Your task to perform on an android device: star an email in the gmail app Image 0: 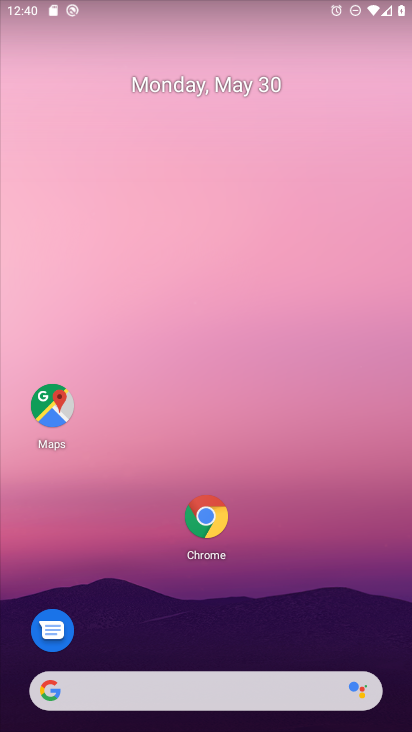
Step 0: press home button
Your task to perform on an android device: star an email in the gmail app Image 1: 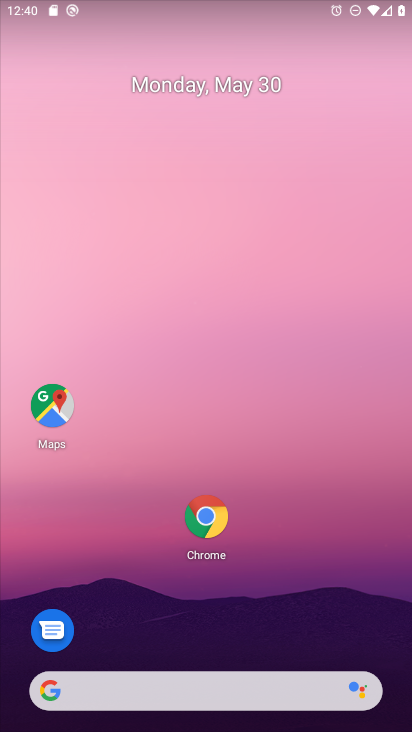
Step 1: drag from (181, 696) to (317, 107)
Your task to perform on an android device: star an email in the gmail app Image 2: 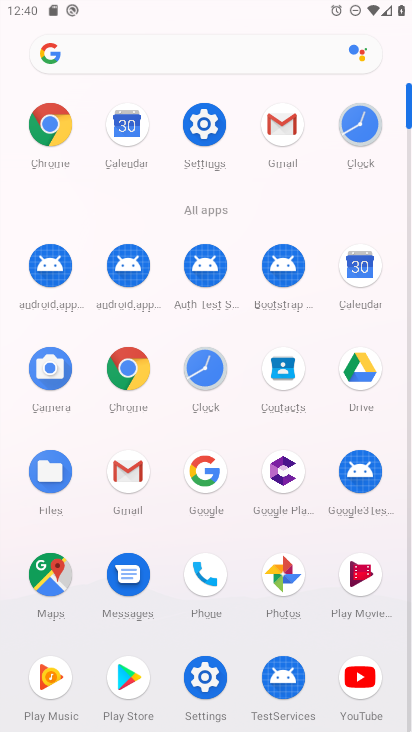
Step 2: click (285, 135)
Your task to perform on an android device: star an email in the gmail app Image 3: 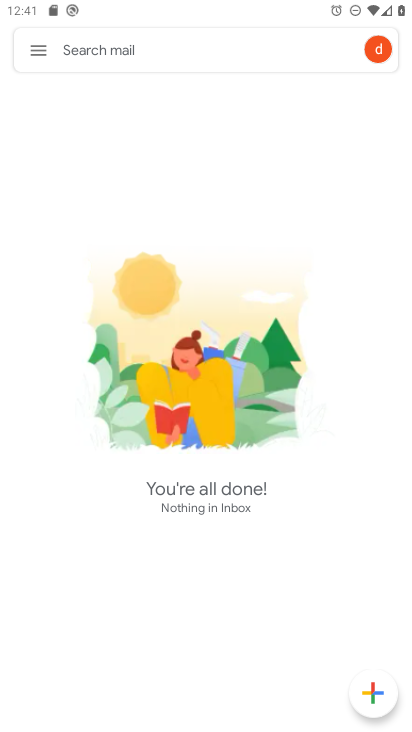
Step 3: task complete